Your task to perform on an android device: Go to Google maps Image 0: 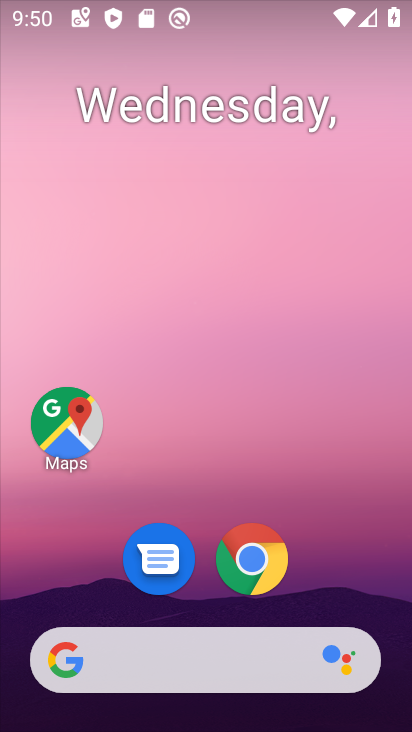
Step 0: click (62, 425)
Your task to perform on an android device: Go to Google maps Image 1: 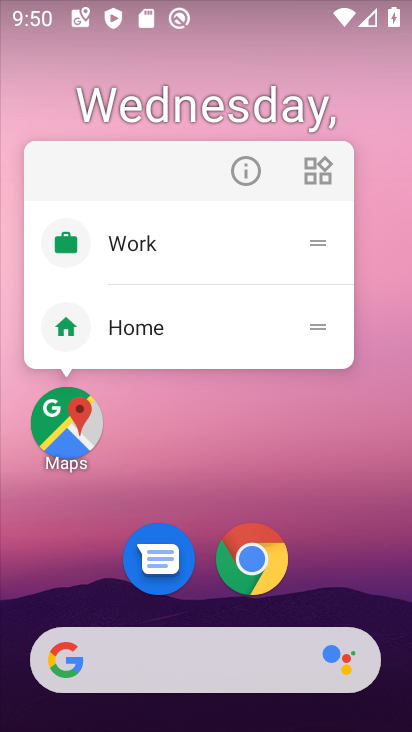
Step 1: click (62, 428)
Your task to perform on an android device: Go to Google maps Image 2: 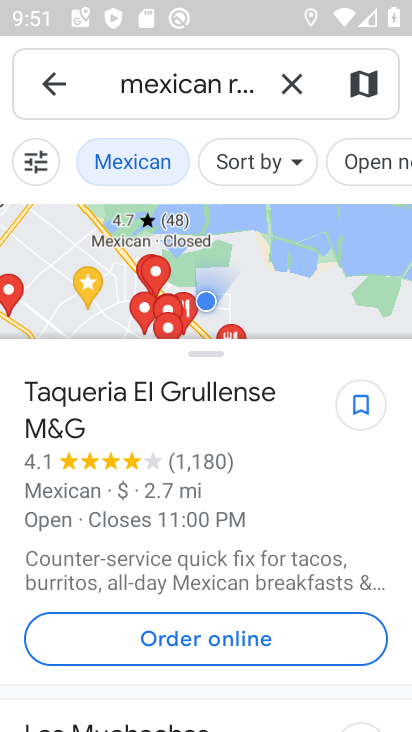
Step 2: click (55, 81)
Your task to perform on an android device: Go to Google maps Image 3: 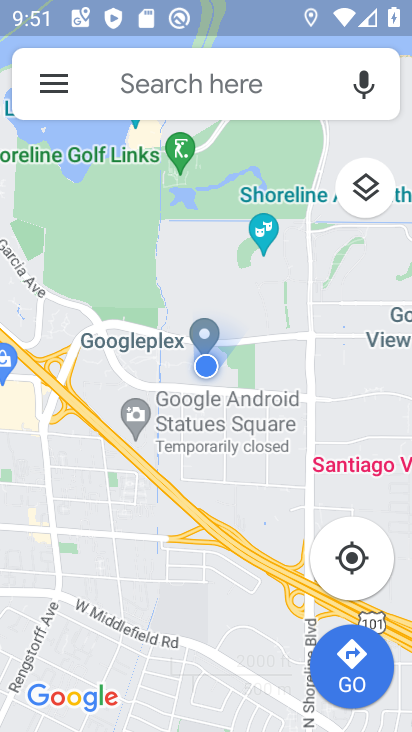
Step 3: task complete